Your task to perform on an android device: Go to Maps Image 0: 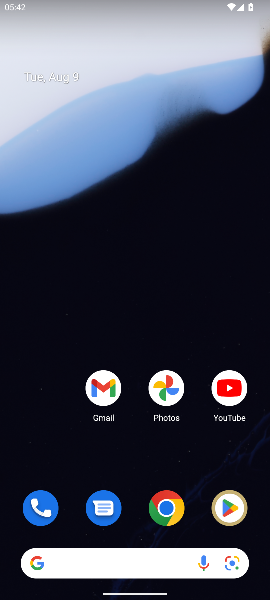
Step 0: drag from (136, 470) to (162, 45)
Your task to perform on an android device: Go to Maps Image 1: 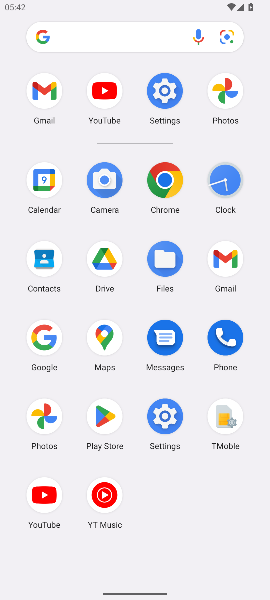
Step 1: click (102, 338)
Your task to perform on an android device: Go to Maps Image 2: 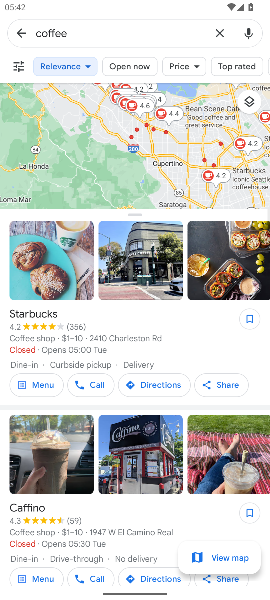
Step 2: task complete